Your task to perform on an android device: What's the weather going to be tomorrow? Image 0: 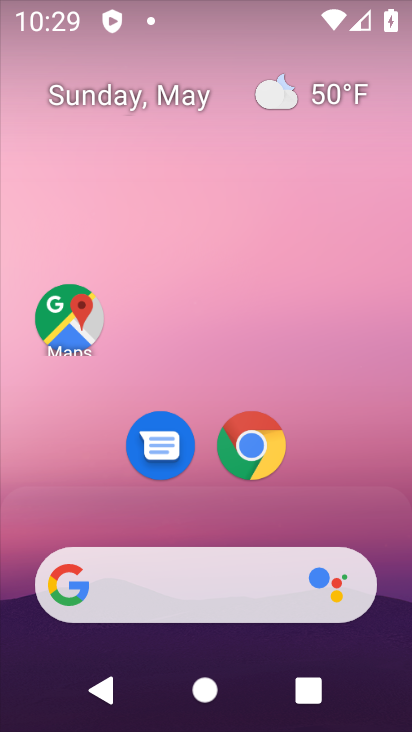
Step 0: click (314, 124)
Your task to perform on an android device: What's the weather going to be tomorrow? Image 1: 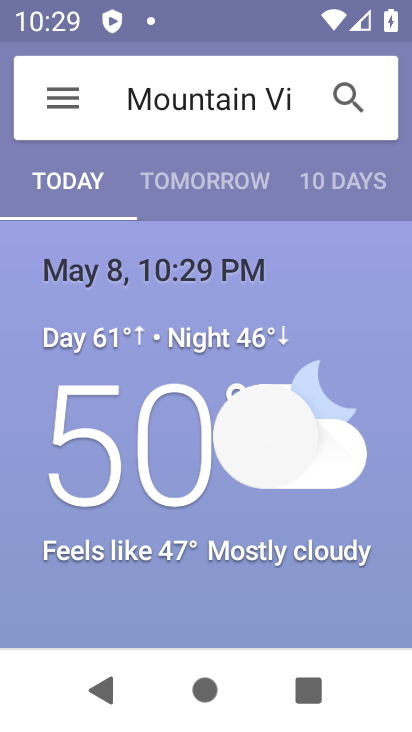
Step 1: click (229, 194)
Your task to perform on an android device: What's the weather going to be tomorrow? Image 2: 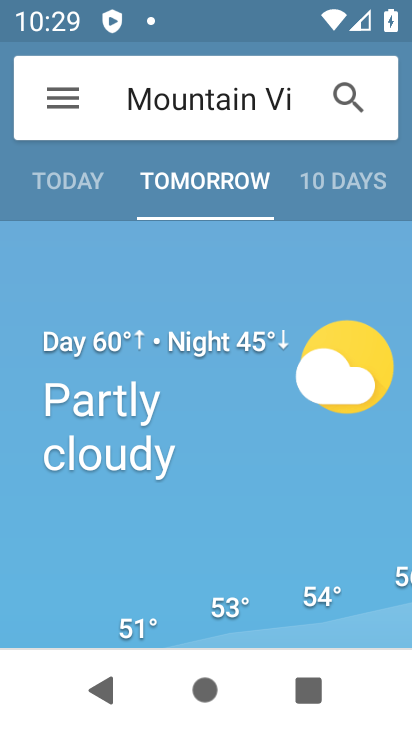
Step 2: task complete